Your task to perform on an android device: add a label to a message in the gmail app Image 0: 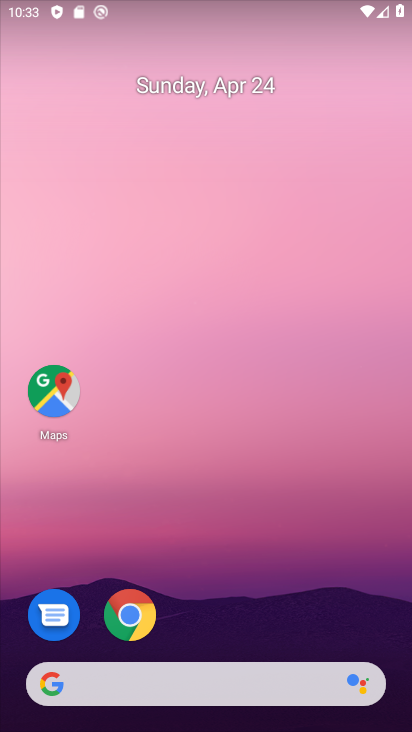
Step 0: drag from (213, 631) to (236, 80)
Your task to perform on an android device: add a label to a message in the gmail app Image 1: 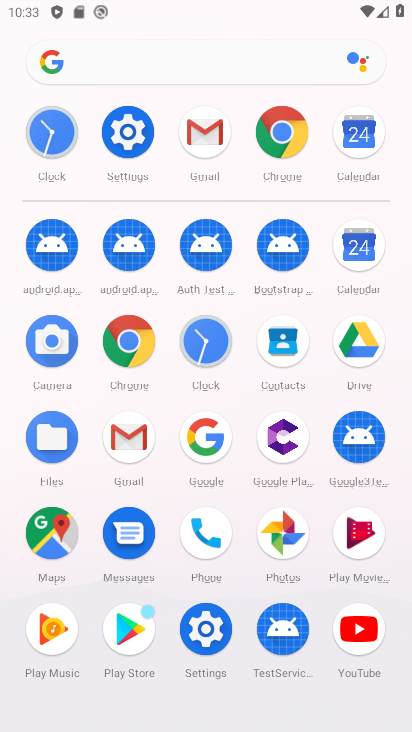
Step 1: click (129, 427)
Your task to perform on an android device: add a label to a message in the gmail app Image 2: 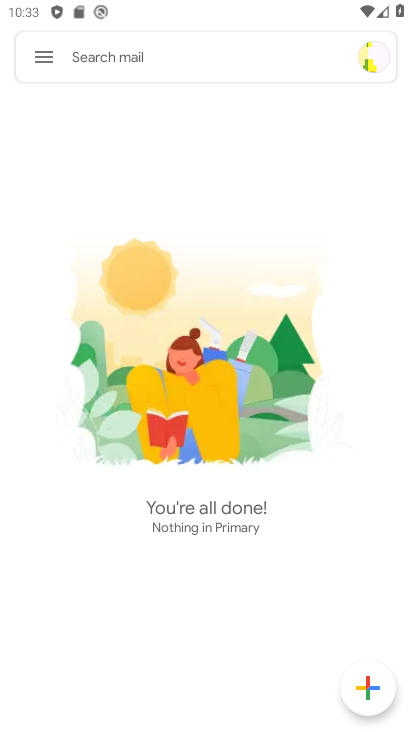
Step 2: click (39, 59)
Your task to perform on an android device: add a label to a message in the gmail app Image 3: 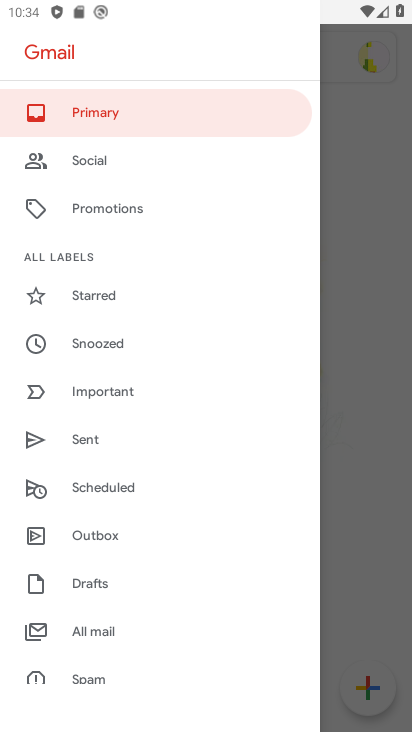
Step 3: click (123, 628)
Your task to perform on an android device: add a label to a message in the gmail app Image 4: 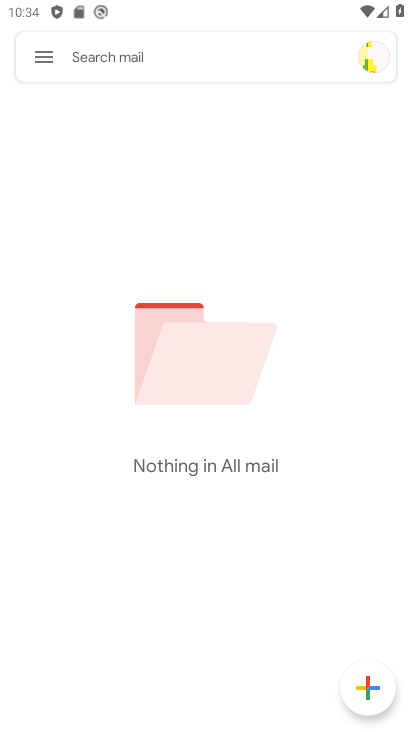
Step 4: task complete